Your task to perform on an android device: Empty the shopping cart on amazon. Add razer kraken to the cart on amazon Image 0: 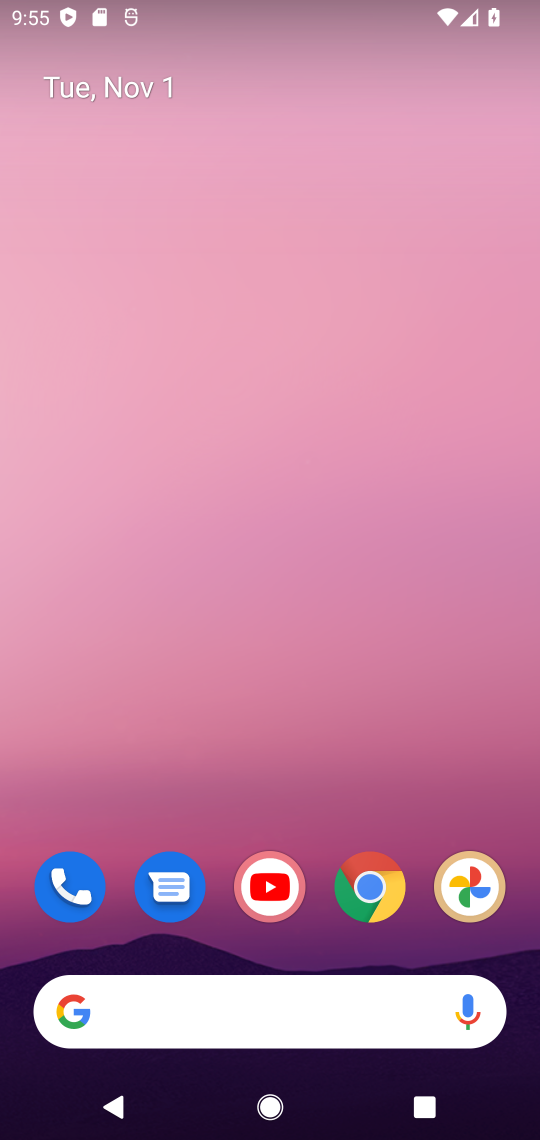
Step 0: click (387, 877)
Your task to perform on an android device: Empty the shopping cart on amazon. Add razer kraken to the cart on amazon Image 1: 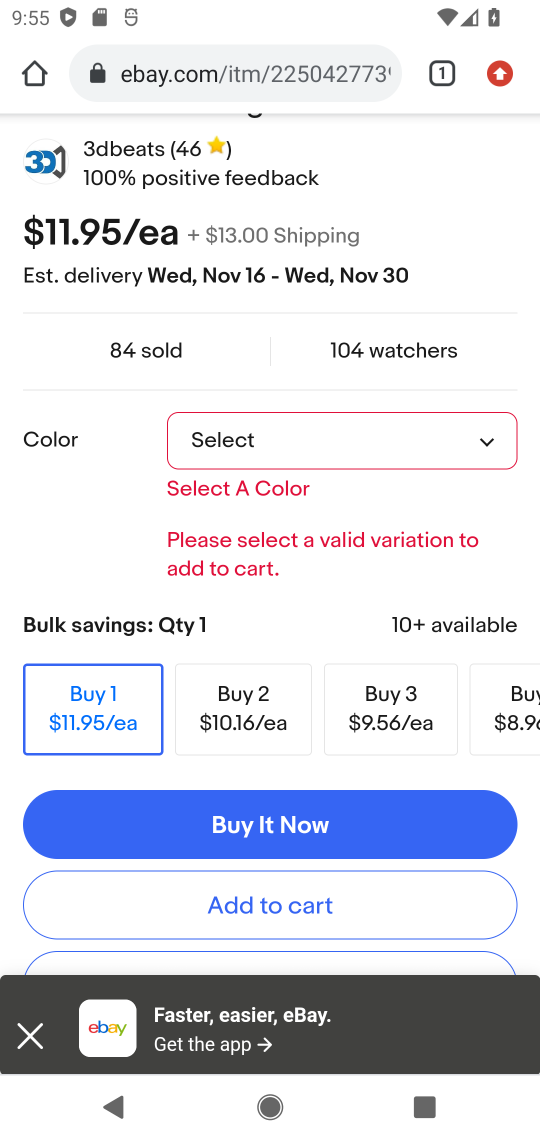
Step 1: click (306, 66)
Your task to perform on an android device: Empty the shopping cart on amazon. Add razer kraken to the cart on amazon Image 2: 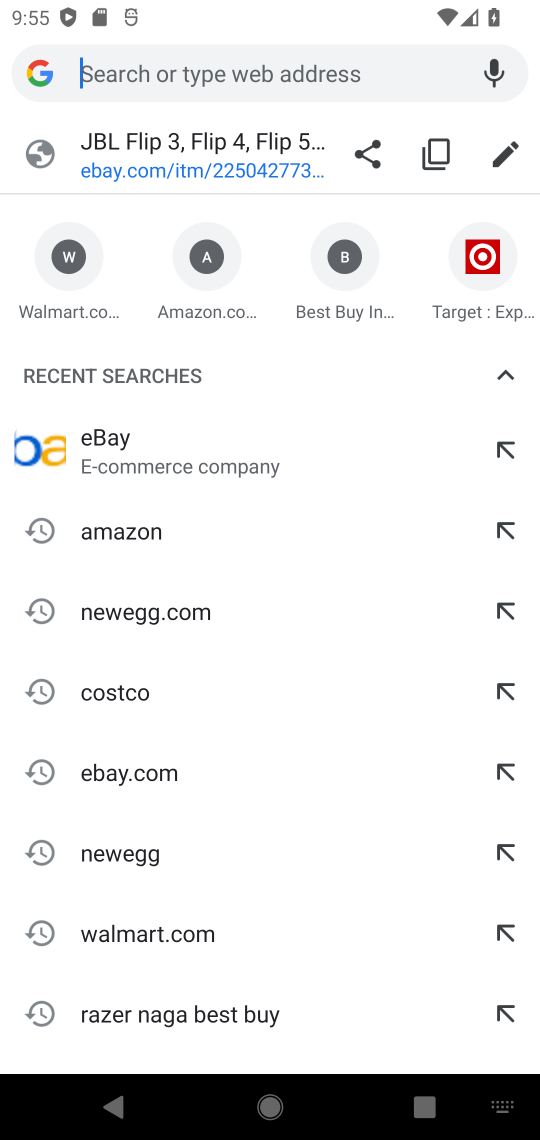
Step 2: click (214, 308)
Your task to perform on an android device: Empty the shopping cart on amazon. Add razer kraken to the cart on amazon Image 3: 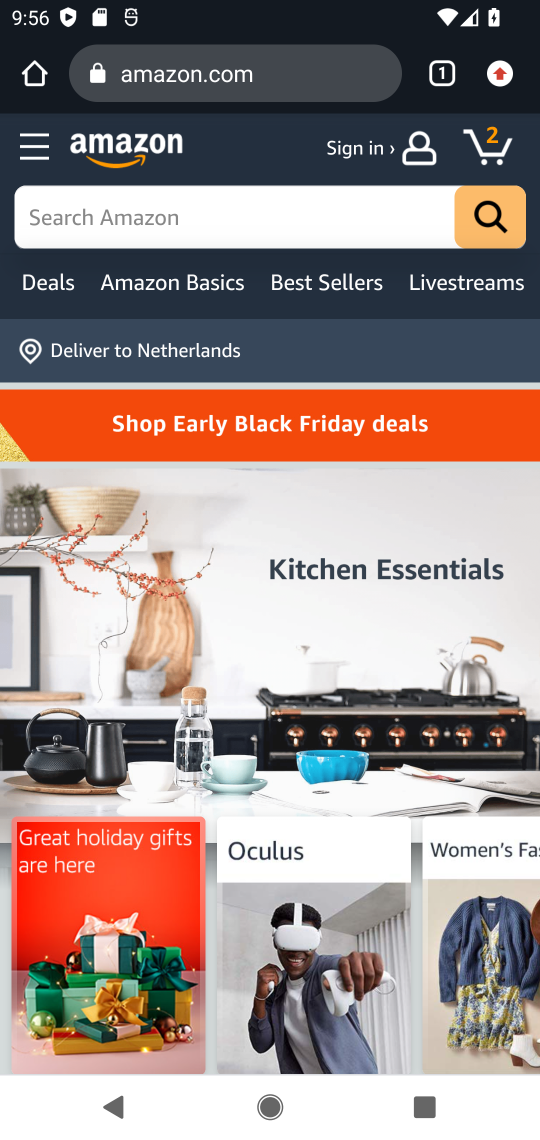
Step 3: click (491, 146)
Your task to perform on an android device: Empty the shopping cart on amazon. Add razer kraken to the cart on amazon Image 4: 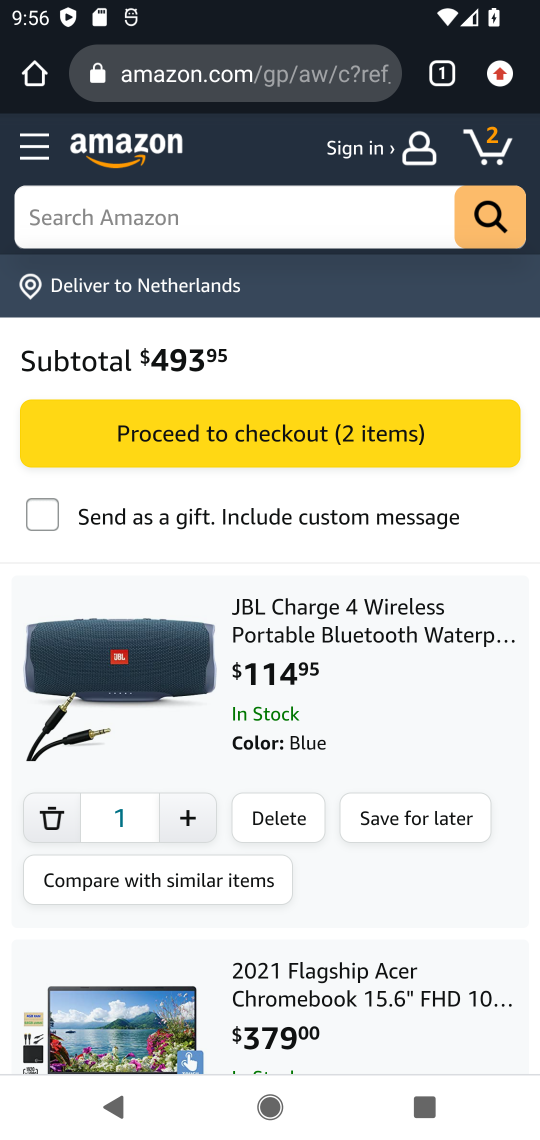
Step 4: click (282, 825)
Your task to perform on an android device: Empty the shopping cart on amazon. Add razer kraken to the cart on amazon Image 5: 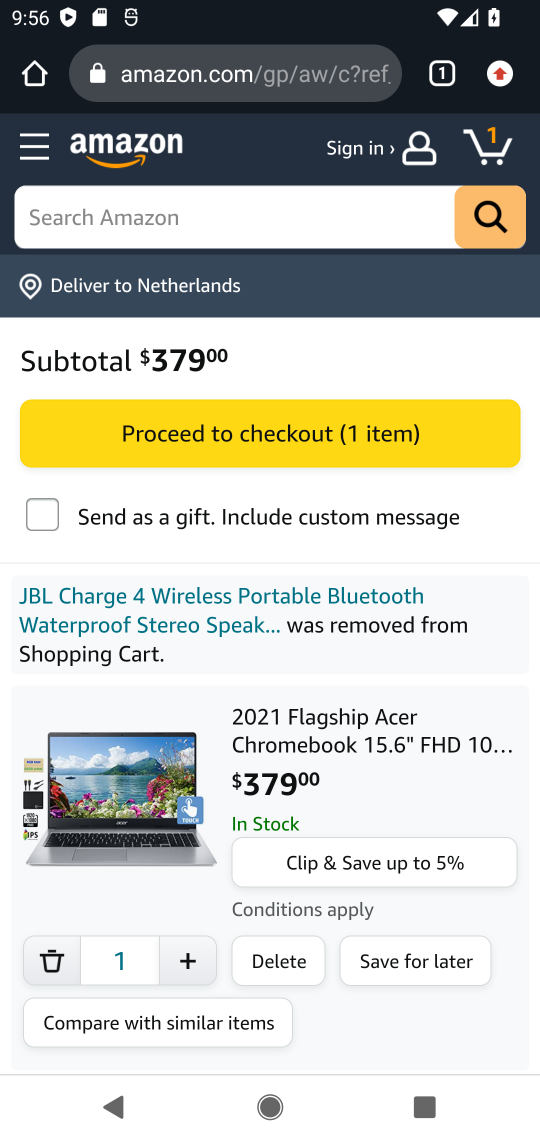
Step 5: click (296, 957)
Your task to perform on an android device: Empty the shopping cart on amazon. Add razer kraken to the cart on amazon Image 6: 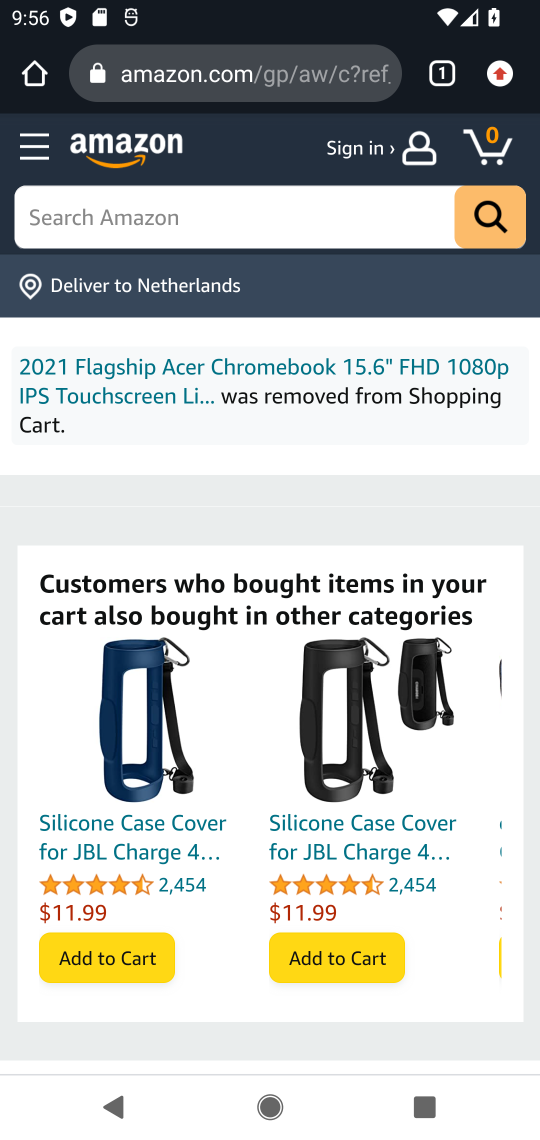
Step 6: click (221, 205)
Your task to perform on an android device: Empty the shopping cart on amazon. Add razer kraken to the cart on amazon Image 7: 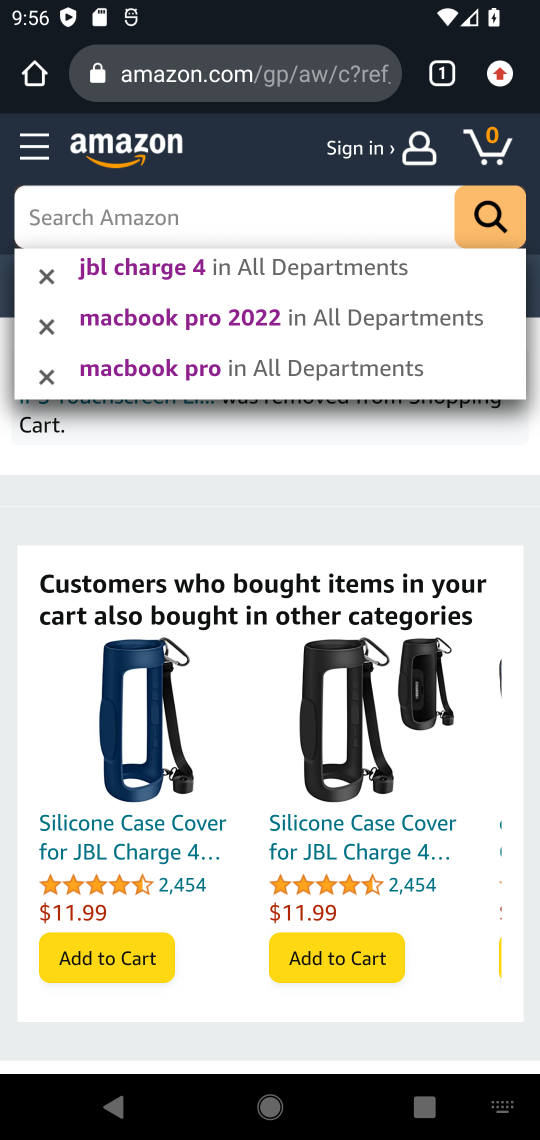
Step 7: type "razer kraken"
Your task to perform on an android device: Empty the shopping cart on amazon. Add razer kraken to the cart on amazon Image 8: 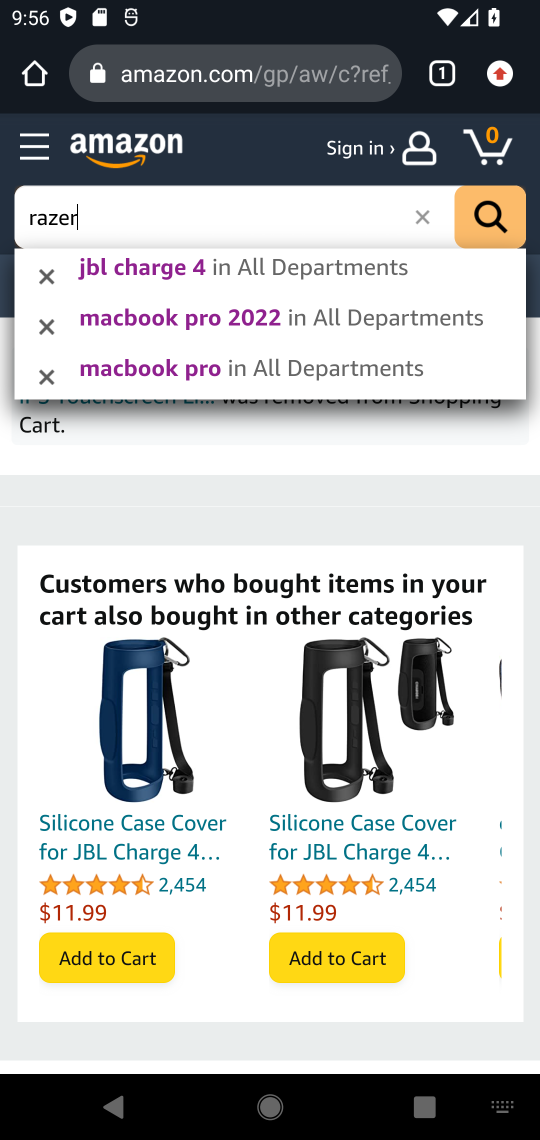
Step 8: press enter
Your task to perform on an android device: Empty the shopping cart on amazon. Add razer kraken to the cart on amazon Image 9: 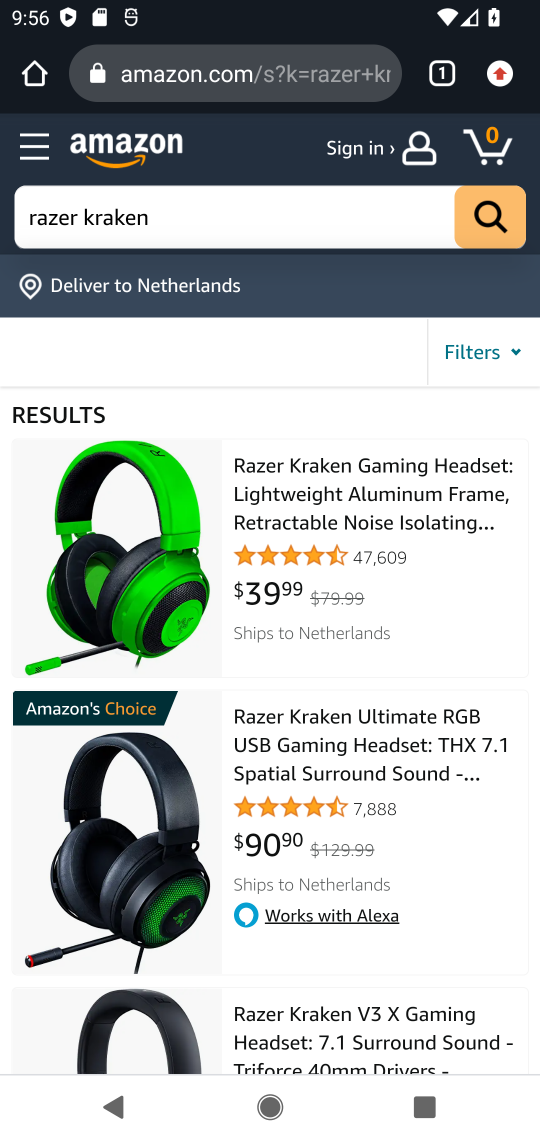
Step 9: click (116, 544)
Your task to perform on an android device: Empty the shopping cart on amazon. Add razer kraken to the cart on amazon Image 10: 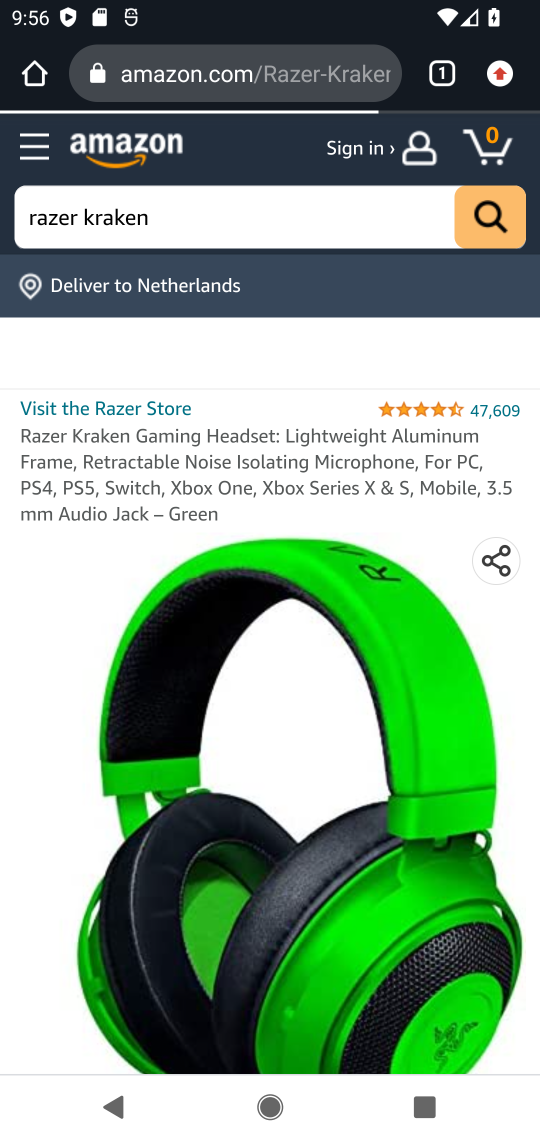
Step 10: drag from (361, 805) to (385, 383)
Your task to perform on an android device: Empty the shopping cart on amazon. Add razer kraken to the cart on amazon Image 11: 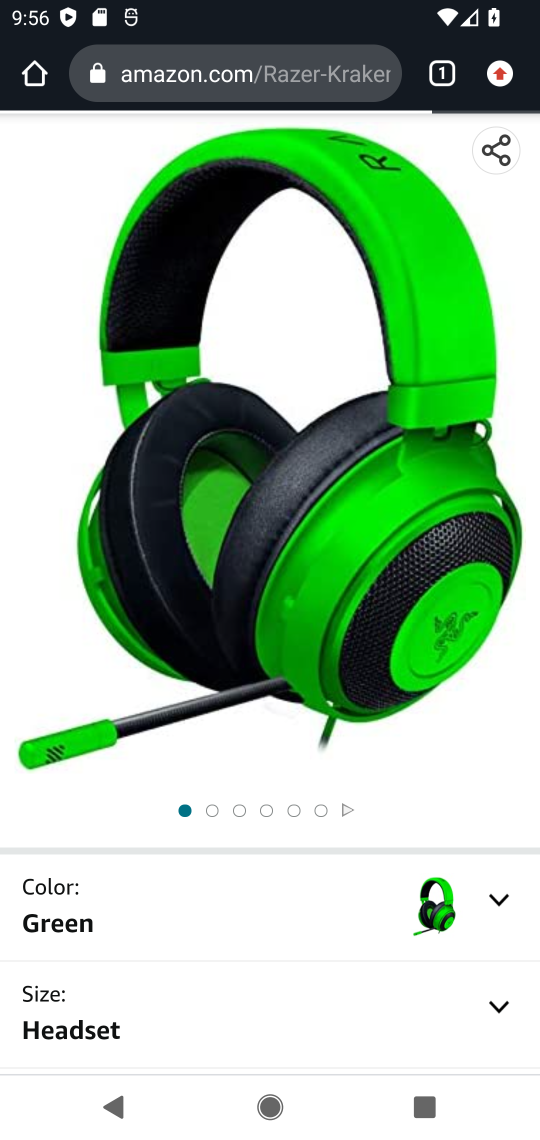
Step 11: drag from (338, 639) to (369, 304)
Your task to perform on an android device: Empty the shopping cart on amazon. Add razer kraken to the cart on amazon Image 12: 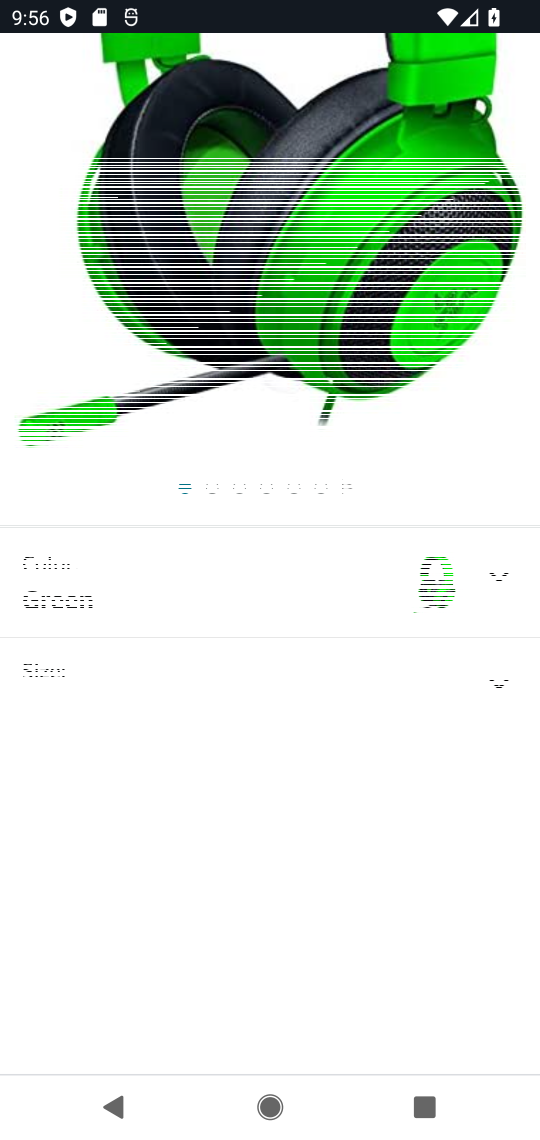
Step 12: drag from (363, 831) to (373, 515)
Your task to perform on an android device: Empty the shopping cart on amazon. Add razer kraken to the cart on amazon Image 13: 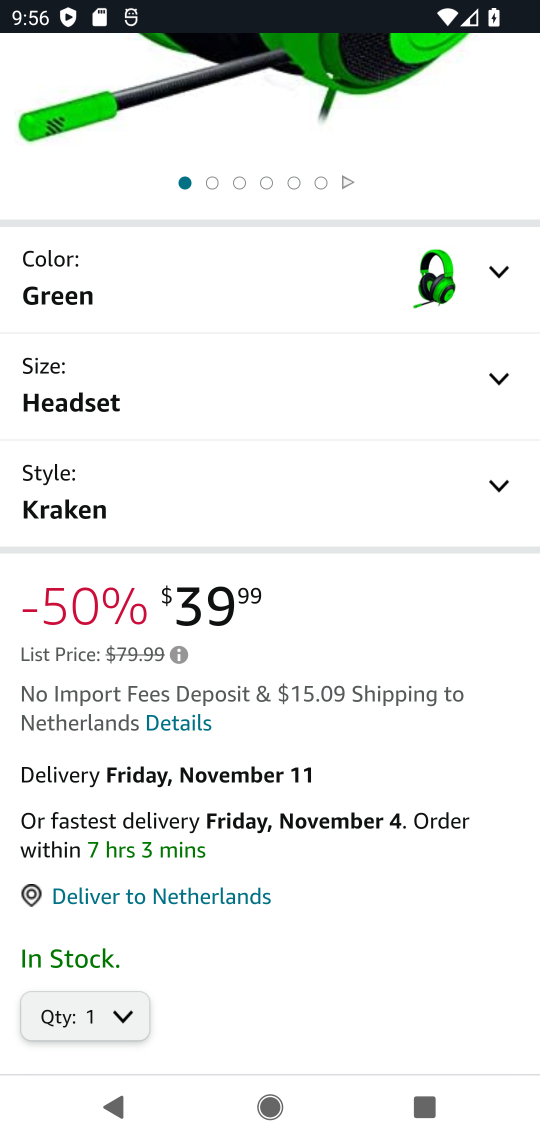
Step 13: drag from (415, 930) to (397, 483)
Your task to perform on an android device: Empty the shopping cart on amazon. Add razer kraken to the cart on amazon Image 14: 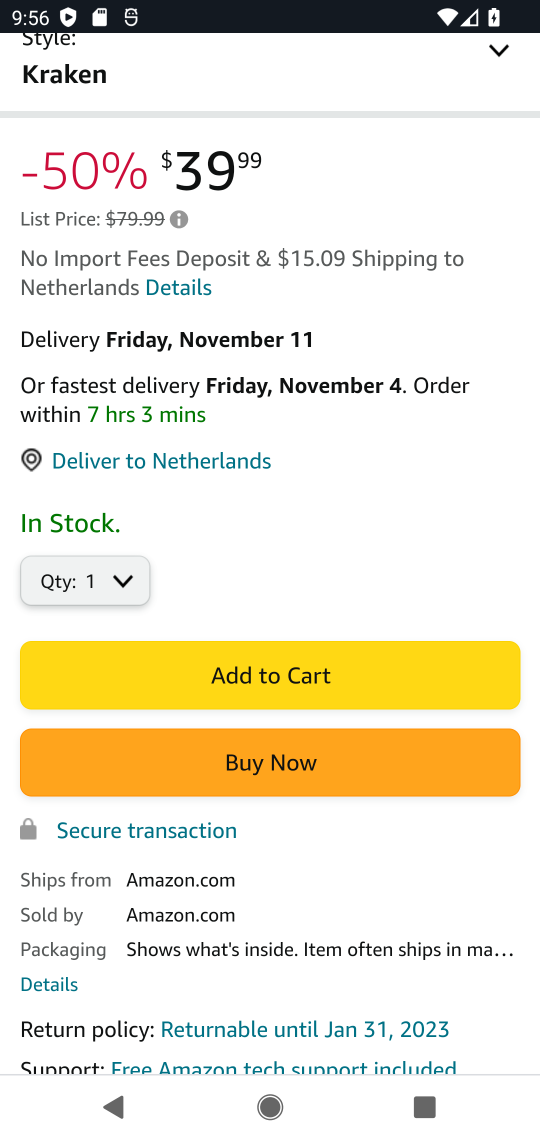
Step 14: click (338, 675)
Your task to perform on an android device: Empty the shopping cart on amazon. Add razer kraken to the cart on amazon Image 15: 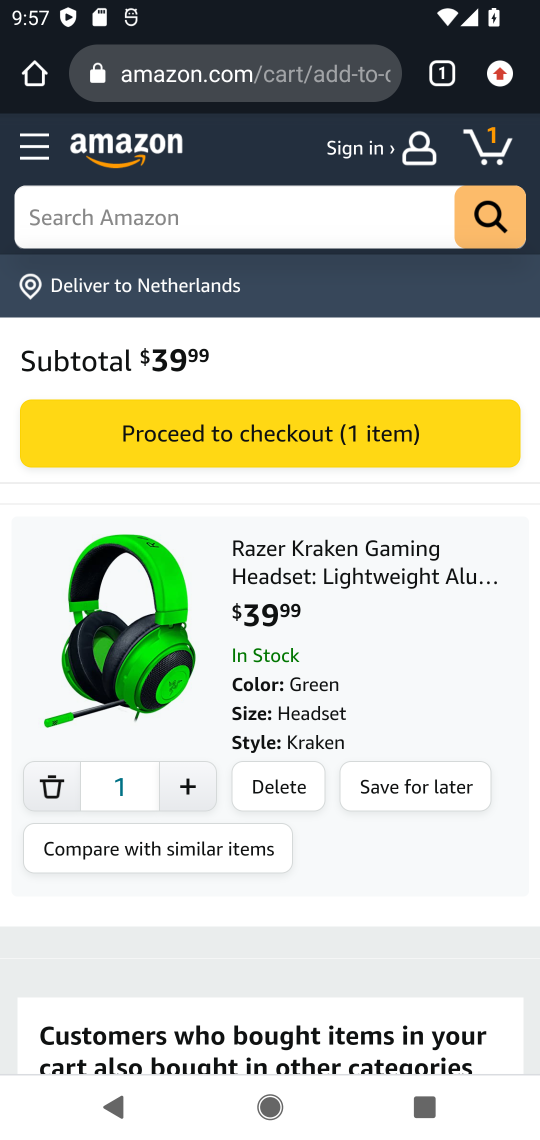
Step 15: task complete